Your task to perform on an android device: Search for a custom-made wallet on Etsy Image 0: 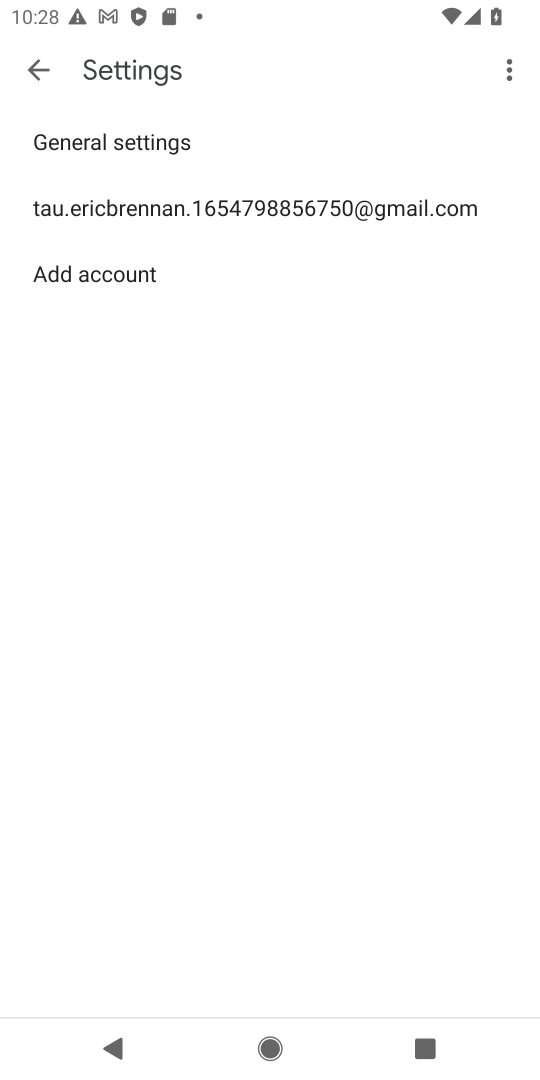
Step 0: press home button
Your task to perform on an android device: Search for a custom-made wallet on Etsy Image 1: 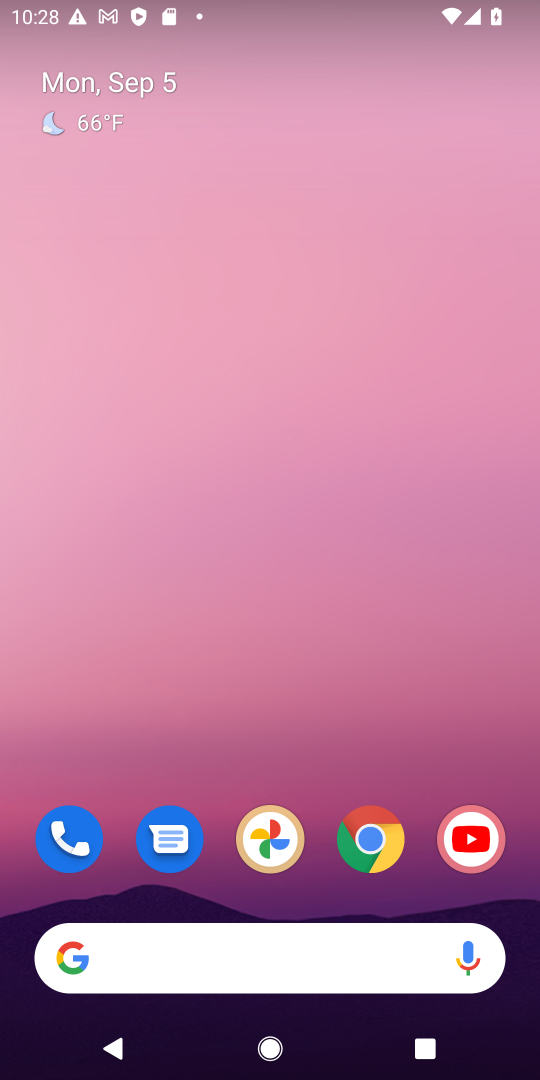
Step 1: drag from (243, 888) to (289, 395)
Your task to perform on an android device: Search for a custom-made wallet on Etsy Image 2: 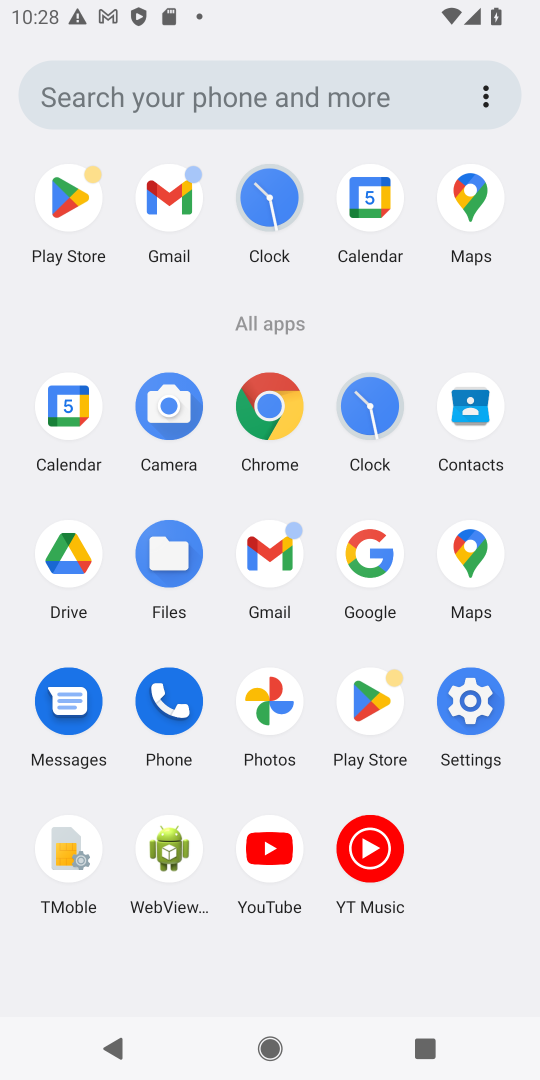
Step 2: click (372, 547)
Your task to perform on an android device: Search for a custom-made wallet on Etsy Image 3: 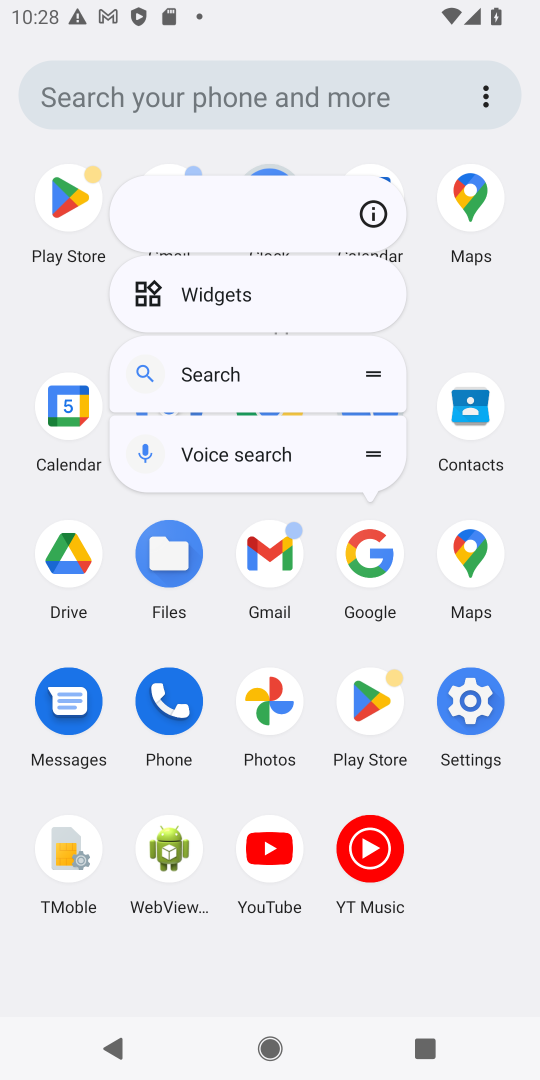
Step 3: click (372, 558)
Your task to perform on an android device: Search for a custom-made wallet on Etsy Image 4: 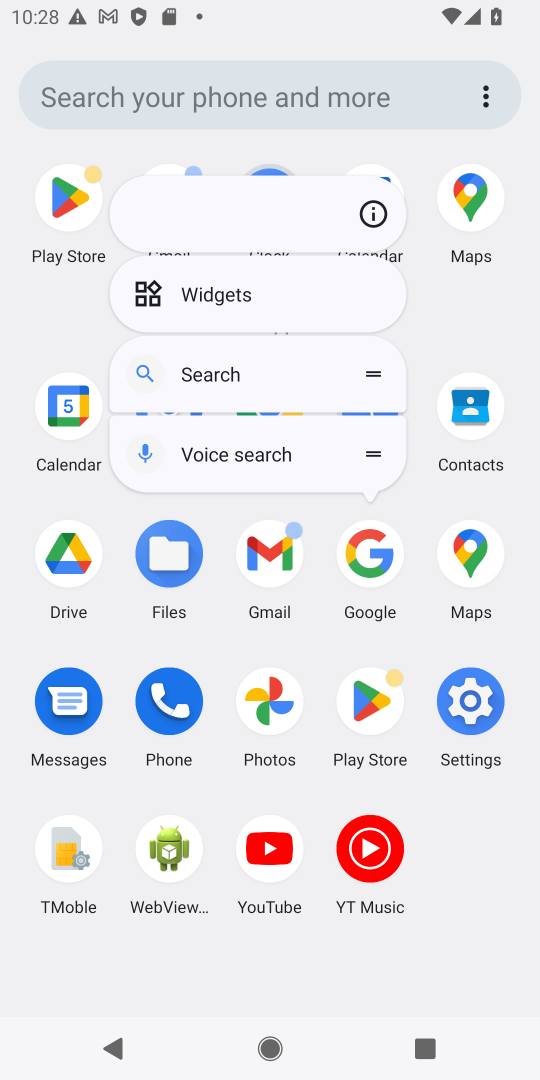
Step 4: click (367, 569)
Your task to perform on an android device: Search for a custom-made wallet on Etsy Image 5: 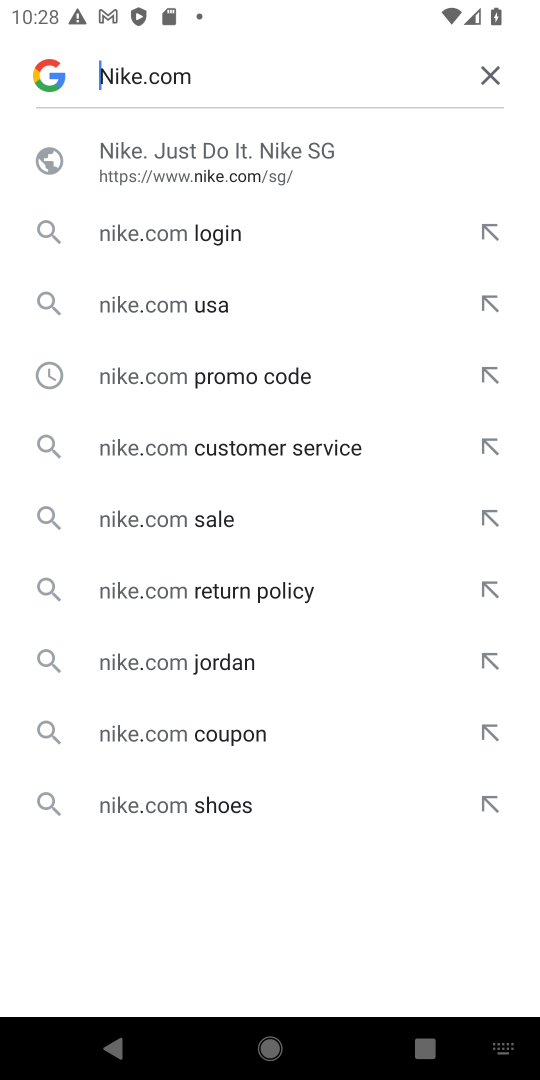
Step 5: click (490, 77)
Your task to perform on an android device: Search for a custom-made wallet on Etsy Image 6: 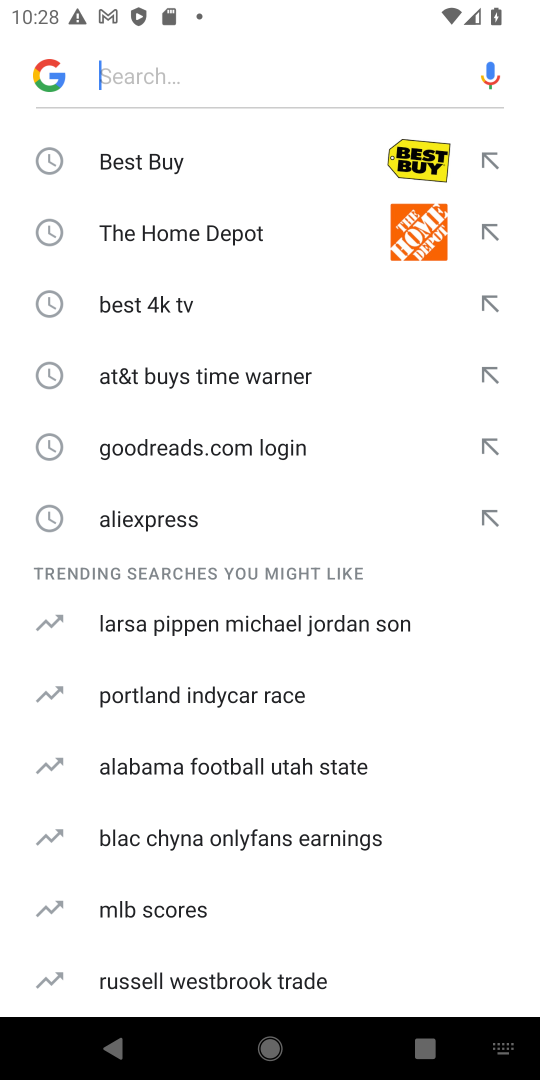
Step 6: type "Etsy"
Your task to perform on an android device: Search for a custom-made wallet on Etsy Image 7: 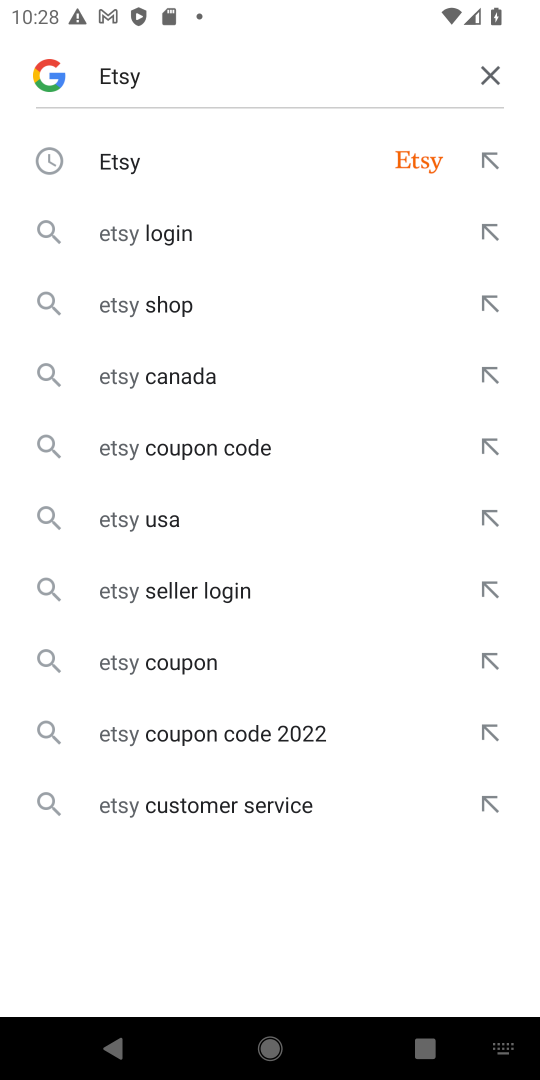
Step 7: click (126, 159)
Your task to perform on an android device: Search for a custom-made wallet on Etsy Image 8: 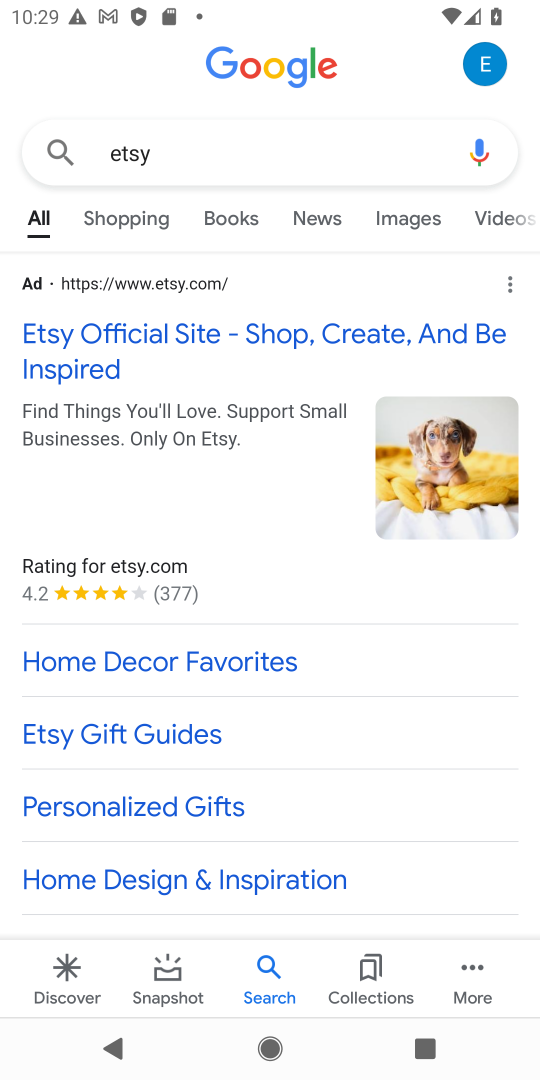
Step 8: click (188, 342)
Your task to perform on an android device: Search for a custom-made wallet on Etsy Image 9: 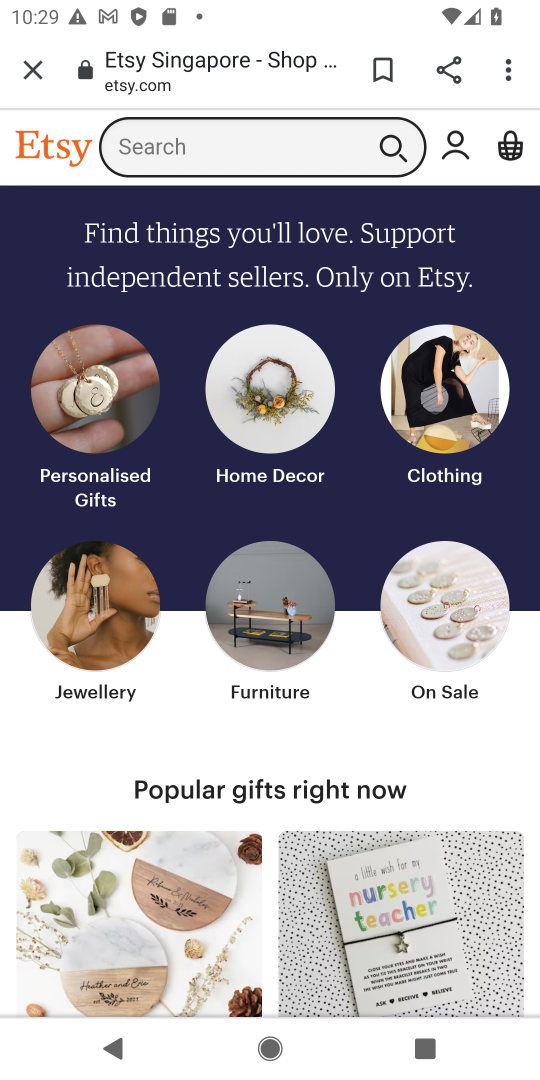
Step 9: click (147, 144)
Your task to perform on an android device: Search for a custom-made wallet on Etsy Image 10: 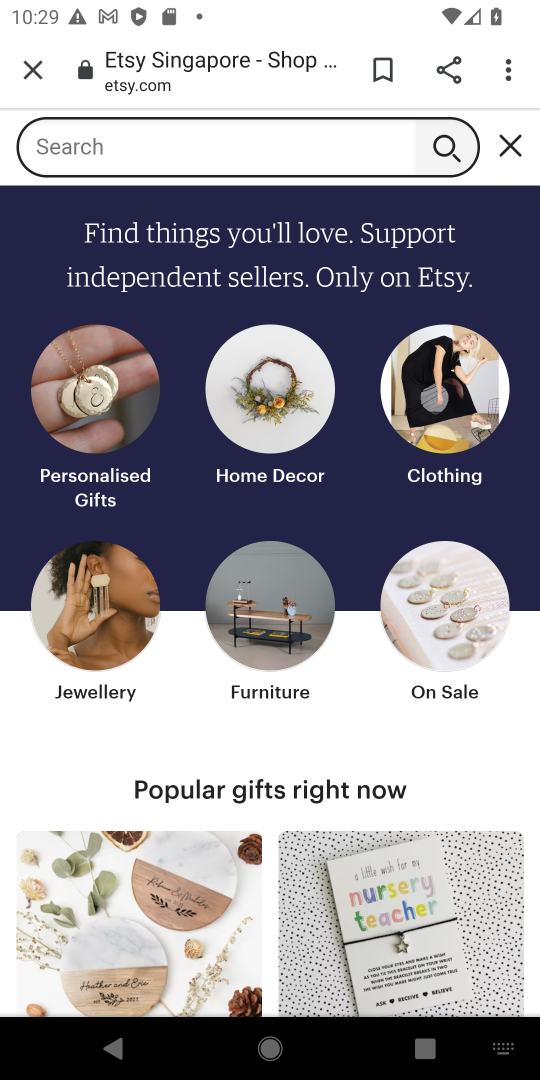
Step 10: type "custom-made wallet"
Your task to perform on an android device: Search for a custom-made wallet on Etsy Image 11: 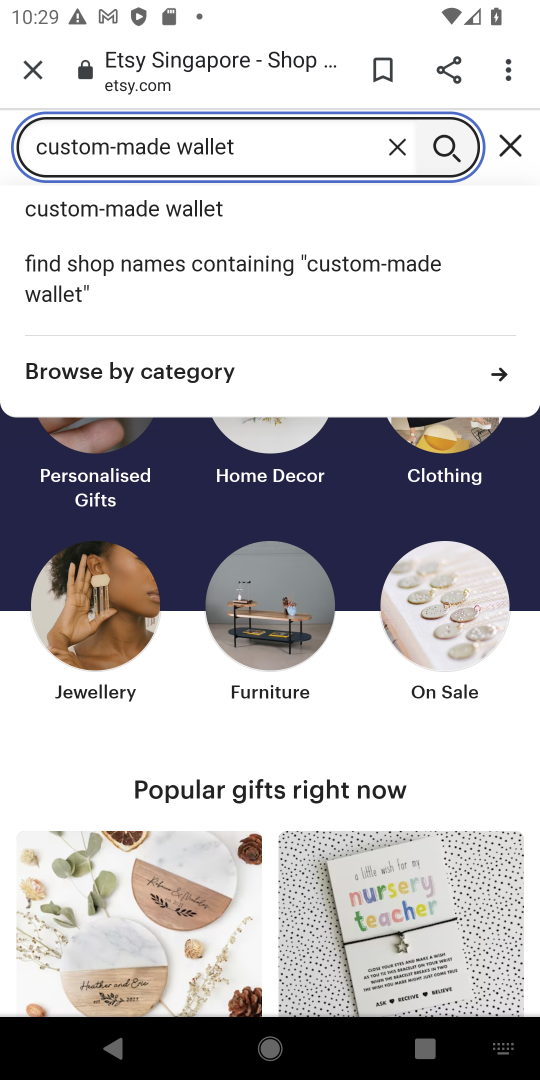
Step 11: click (191, 213)
Your task to perform on an android device: Search for a custom-made wallet on Etsy Image 12: 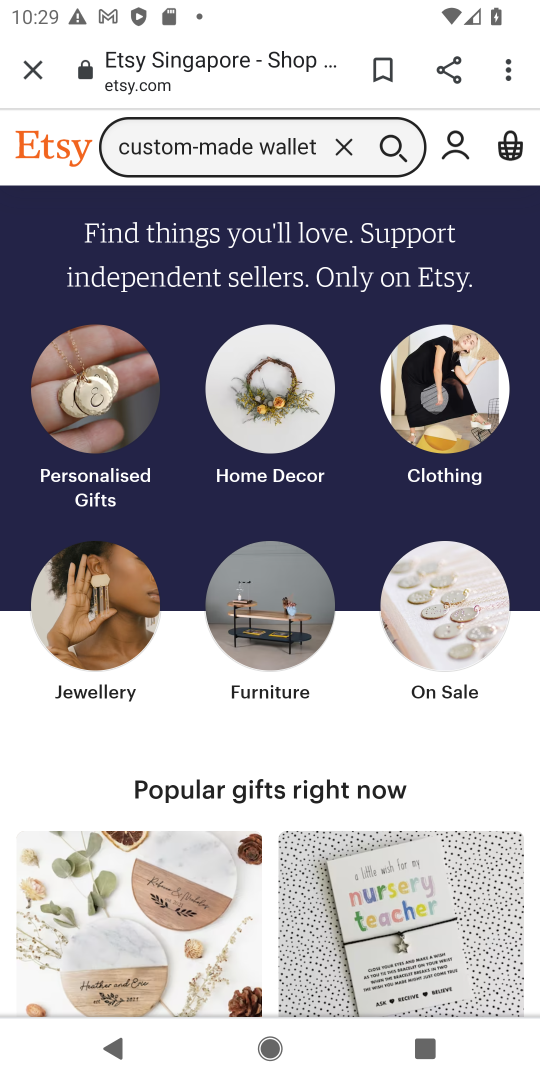
Step 12: click (392, 153)
Your task to perform on an android device: Search for a custom-made wallet on Etsy Image 13: 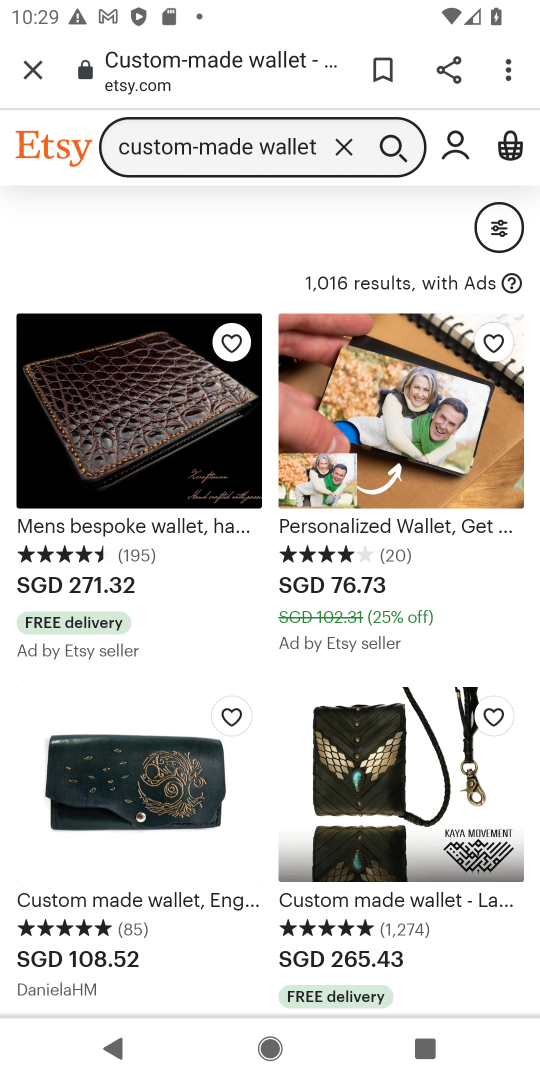
Step 13: drag from (371, 735) to (371, 421)
Your task to perform on an android device: Search for a custom-made wallet on Etsy Image 14: 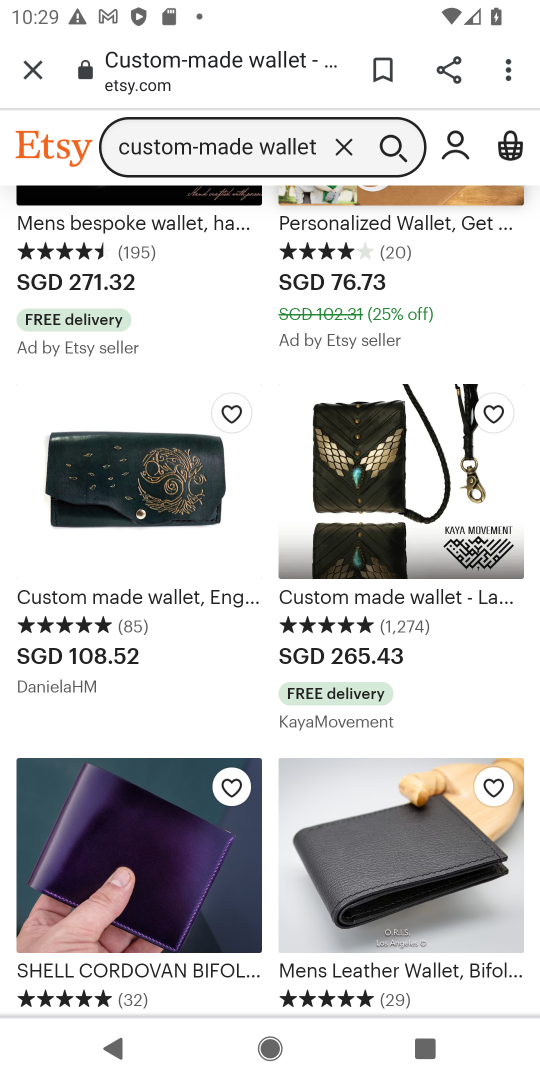
Step 14: click (329, 316)
Your task to perform on an android device: Search for a custom-made wallet on Etsy Image 15: 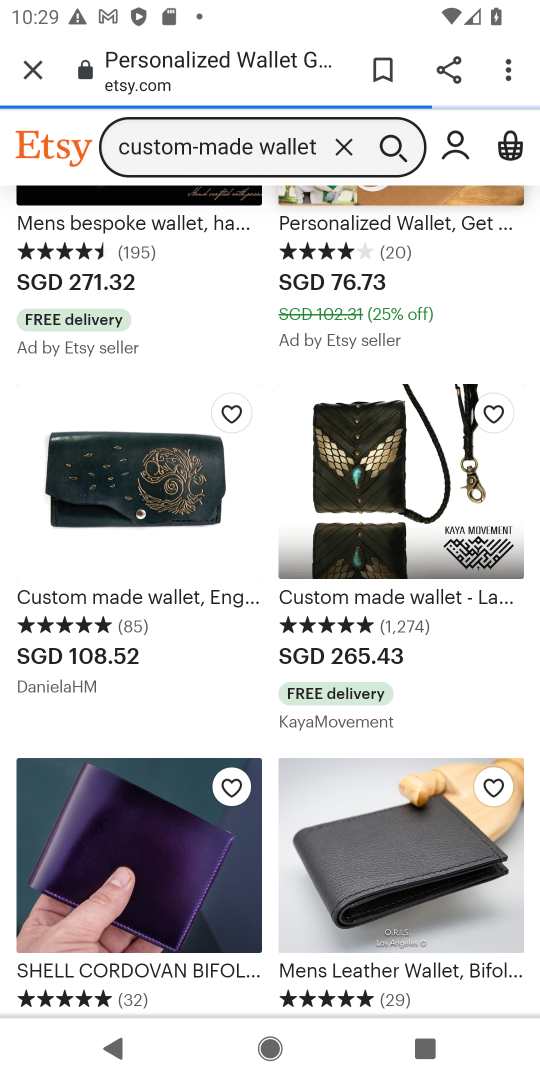
Step 15: task complete